Your task to perform on an android device: turn on data saver in the chrome app Image 0: 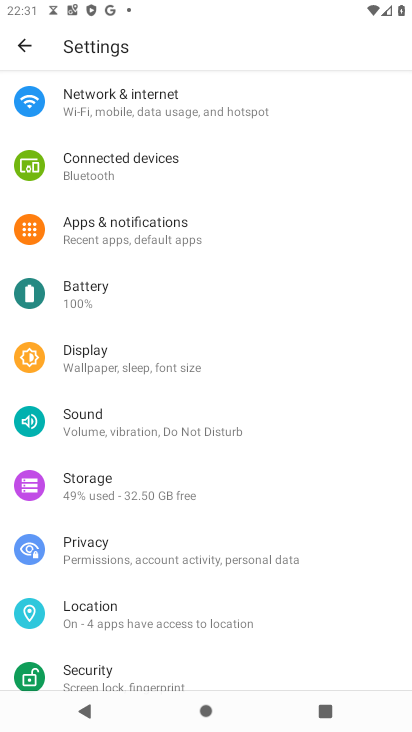
Step 0: press home button
Your task to perform on an android device: turn on data saver in the chrome app Image 1: 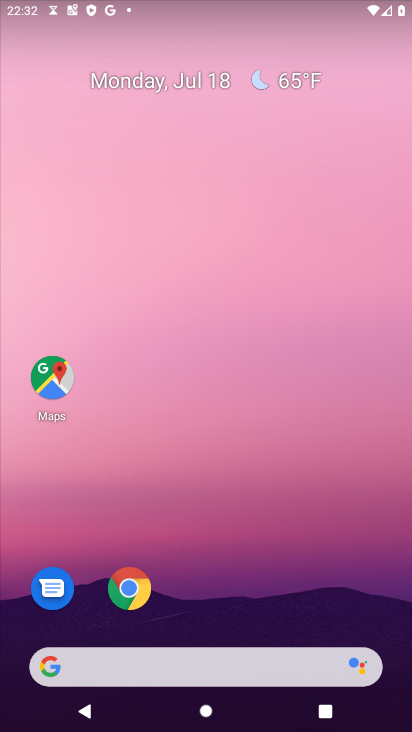
Step 1: click (130, 587)
Your task to perform on an android device: turn on data saver in the chrome app Image 2: 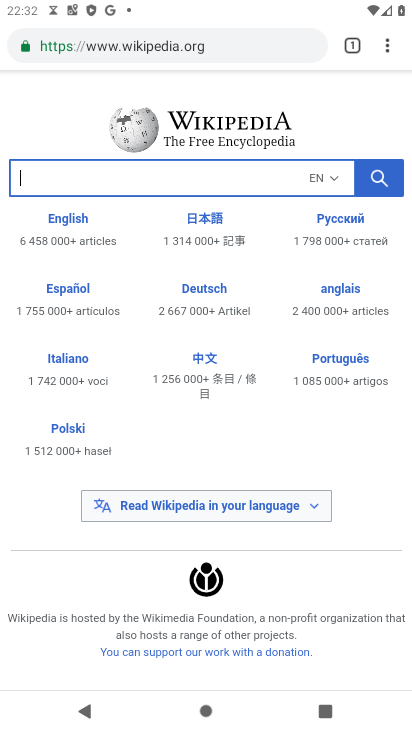
Step 2: click (389, 45)
Your task to perform on an android device: turn on data saver in the chrome app Image 3: 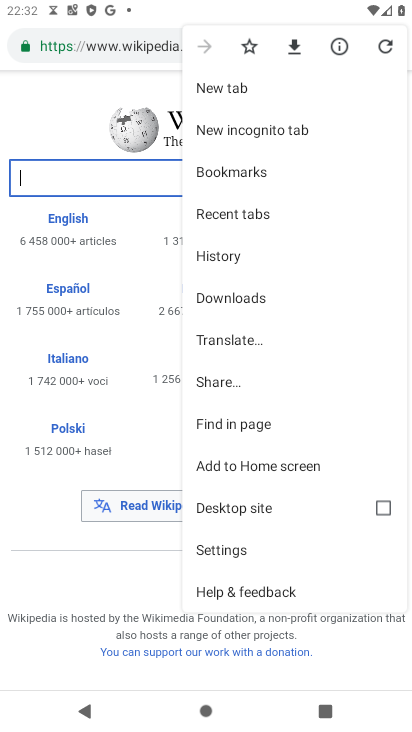
Step 3: click (235, 550)
Your task to perform on an android device: turn on data saver in the chrome app Image 4: 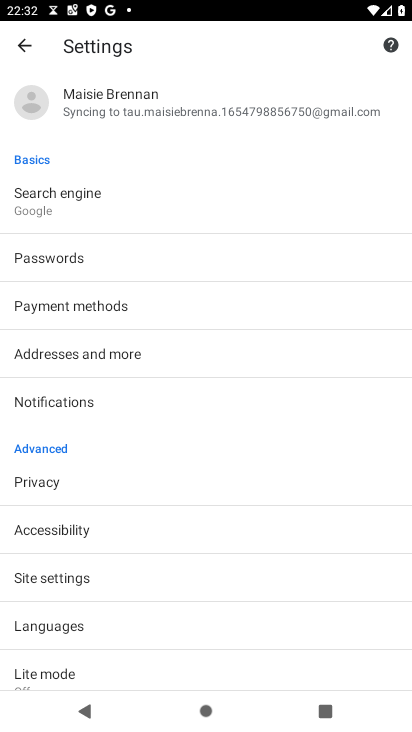
Step 4: drag from (96, 472) to (172, 365)
Your task to perform on an android device: turn on data saver in the chrome app Image 5: 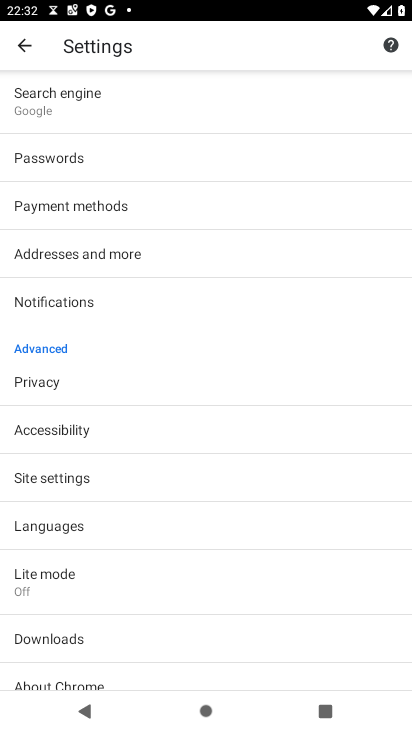
Step 5: click (54, 581)
Your task to perform on an android device: turn on data saver in the chrome app Image 6: 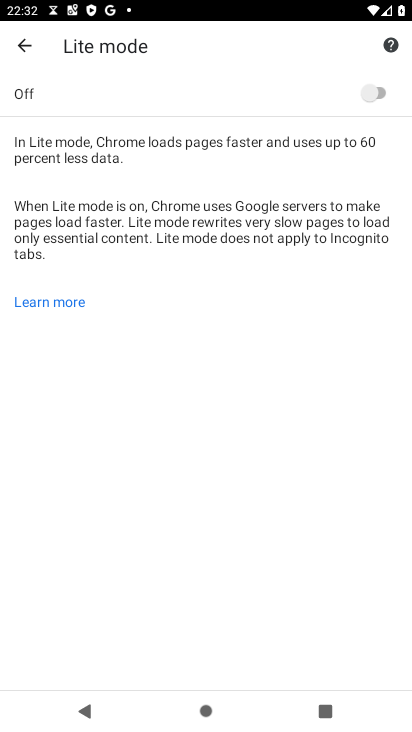
Step 6: click (369, 96)
Your task to perform on an android device: turn on data saver in the chrome app Image 7: 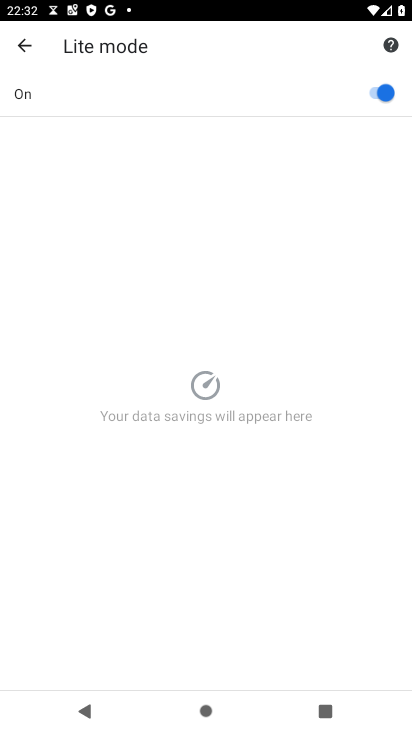
Step 7: task complete